Your task to perform on an android device: Show me popular games on the Play Store Image 0: 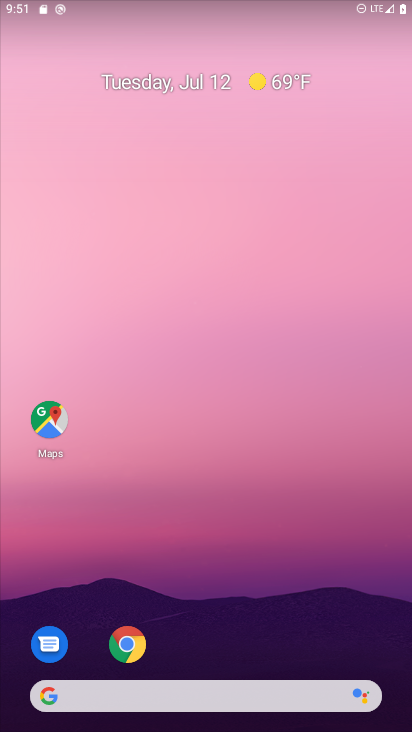
Step 0: press home button
Your task to perform on an android device: Show me popular games on the Play Store Image 1: 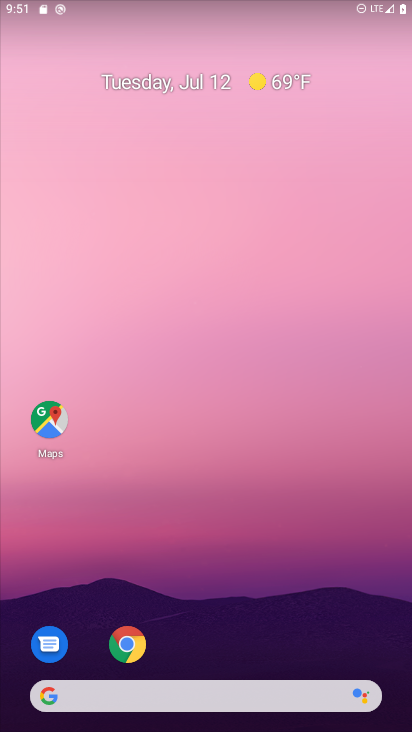
Step 1: drag from (226, 657) to (249, 73)
Your task to perform on an android device: Show me popular games on the Play Store Image 2: 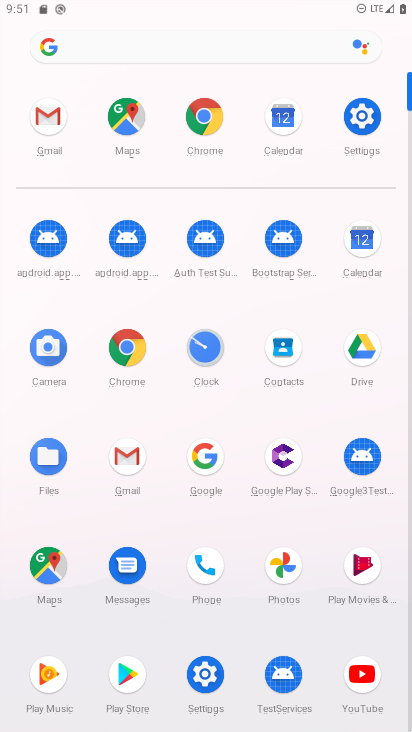
Step 2: click (119, 668)
Your task to perform on an android device: Show me popular games on the Play Store Image 3: 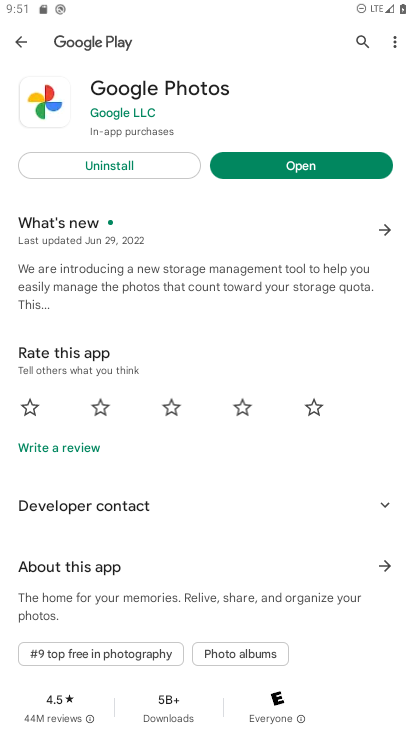
Step 3: click (16, 39)
Your task to perform on an android device: Show me popular games on the Play Store Image 4: 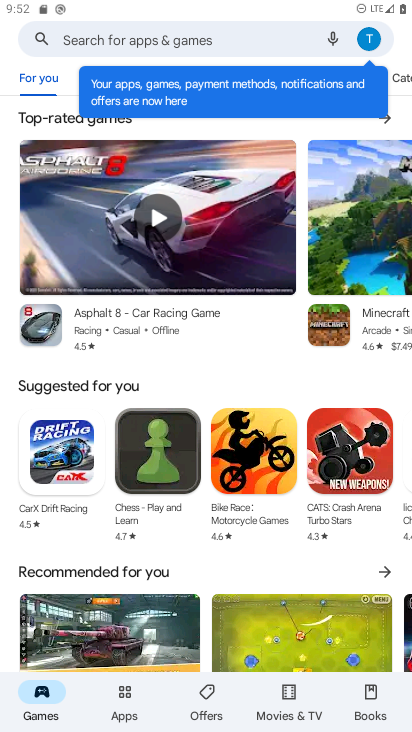
Step 4: click (126, 696)
Your task to perform on an android device: Show me popular games on the Play Store Image 5: 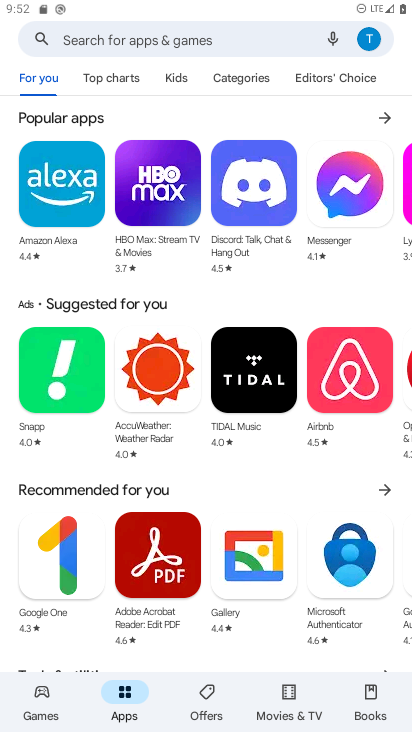
Step 5: click (236, 82)
Your task to perform on an android device: Show me popular games on the Play Store Image 6: 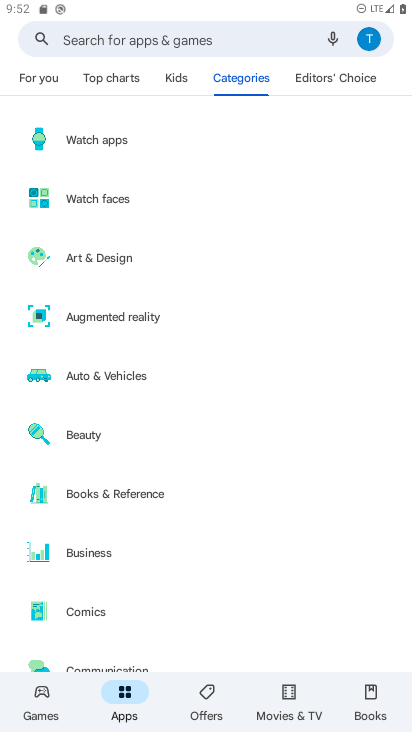
Step 6: drag from (152, 620) to (205, 14)
Your task to perform on an android device: Show me popular games on the Play Store Image 7: 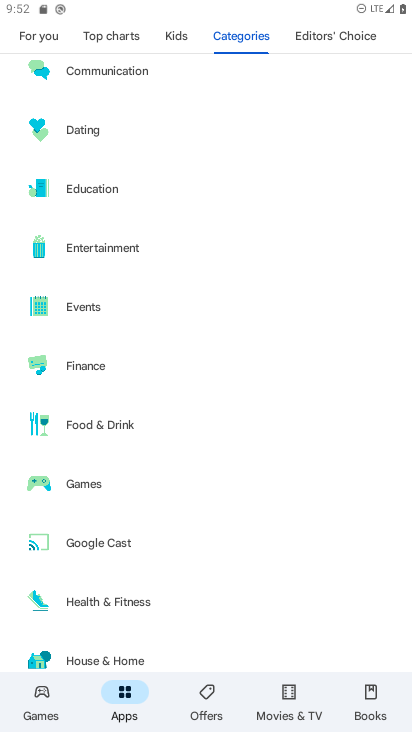
Step 7: drag from (179, 637) to (239, 109)
Your task to perform on an android device: Show me popular games on the Play Store Image 8: 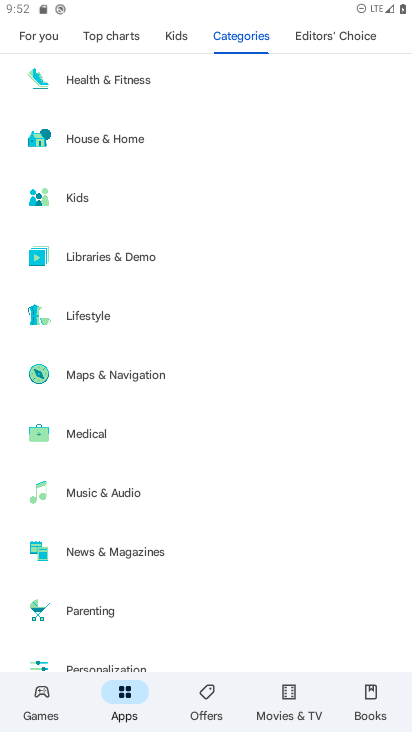
Step 8: drag from (164, 616) to (200, 272)
Your task to perform on an android device: Show me popular games on the Play Store Image 9: 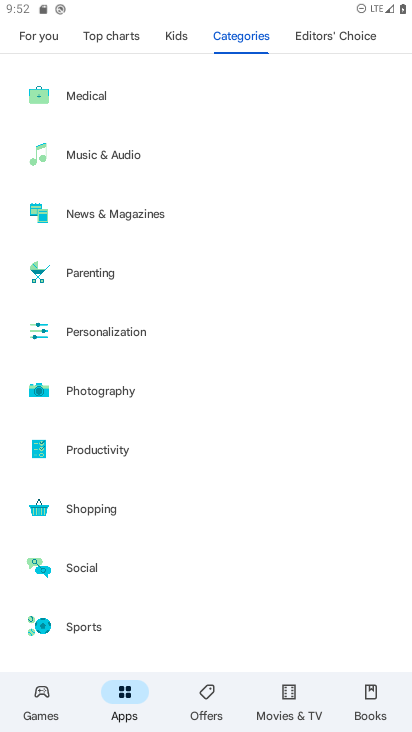
Step 9: click (40, 698)
Your task to perform on an android device: Show me popular games on the Play Store Image 10: 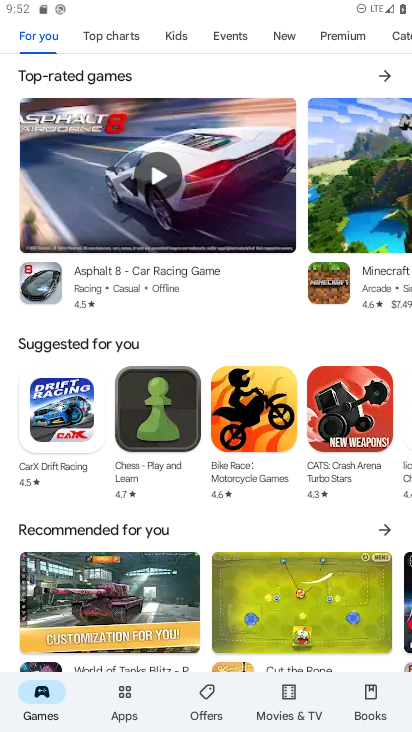
Step 10: task complete